Your task to perform on an android device: install app "Google Play Games" Image 0: 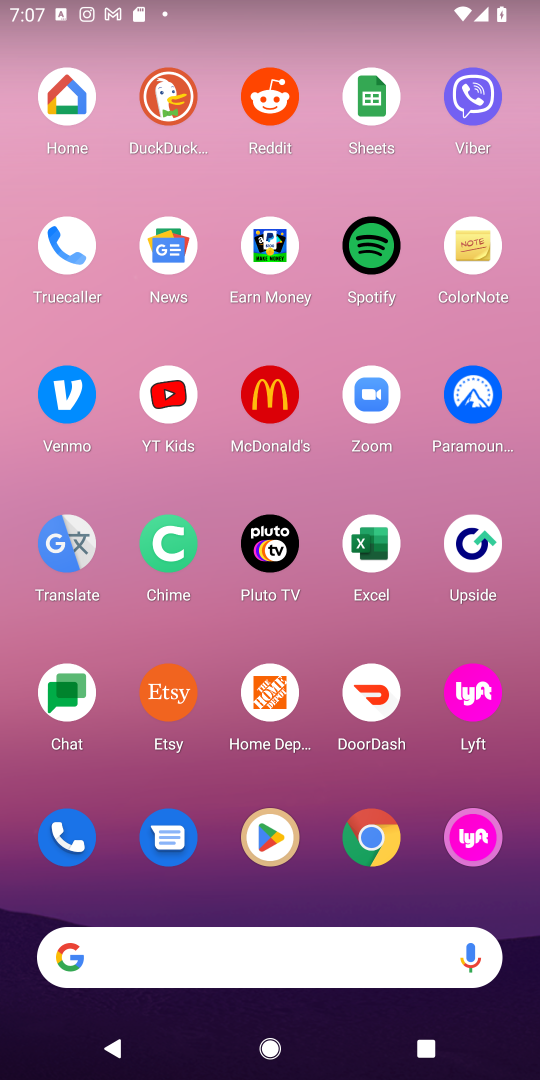
Step 0: press home button
Your task to perform on an android device: install app "Google Play Games" Image 1: 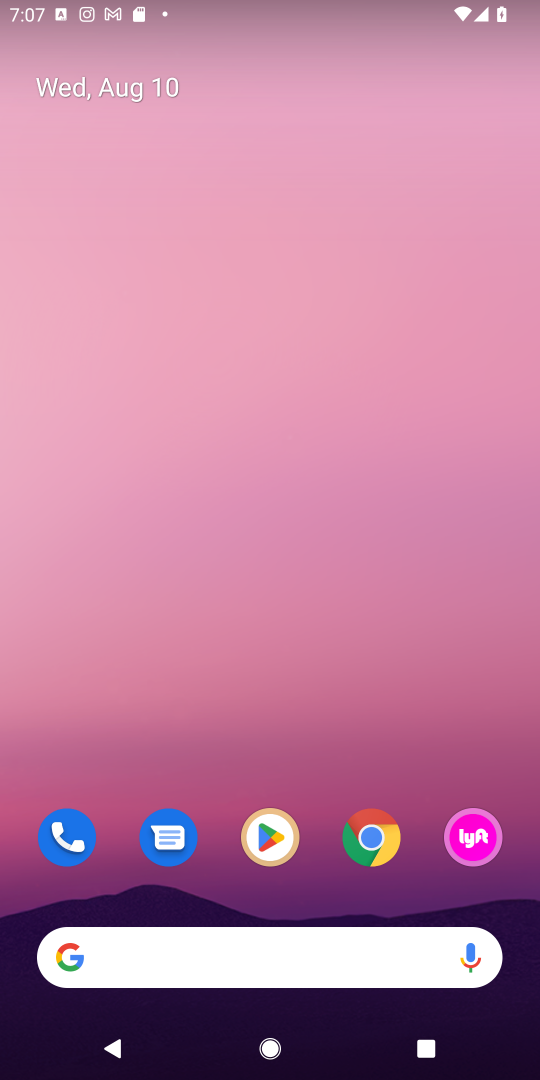
Step 1: click (274, 839)
Your task to perform on an android device: install app "Google Play Games" Image 2: 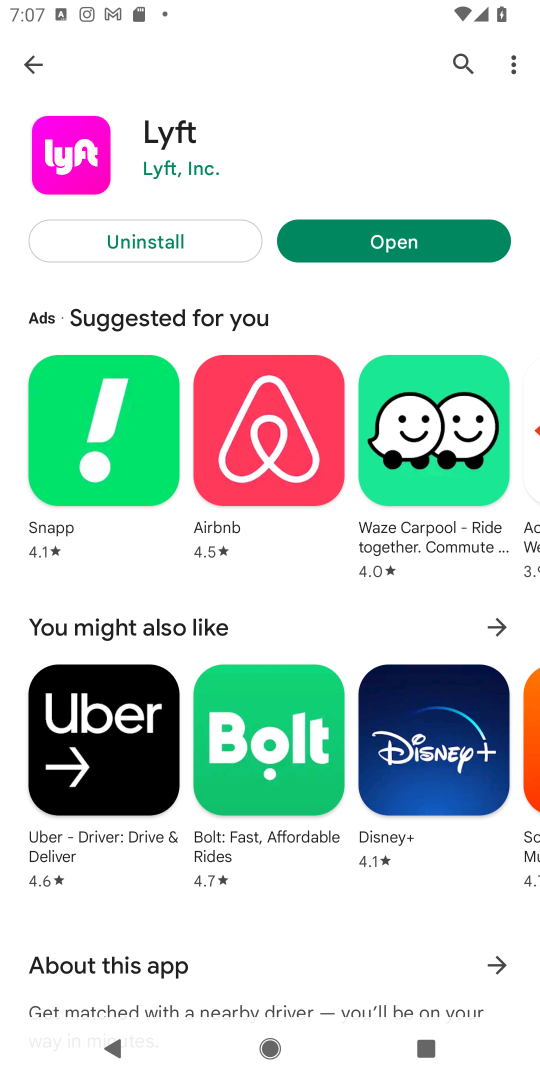
Step 2: click (457, 56)
Your task to perform on an android device: install app "Google Play Games" Image 3: 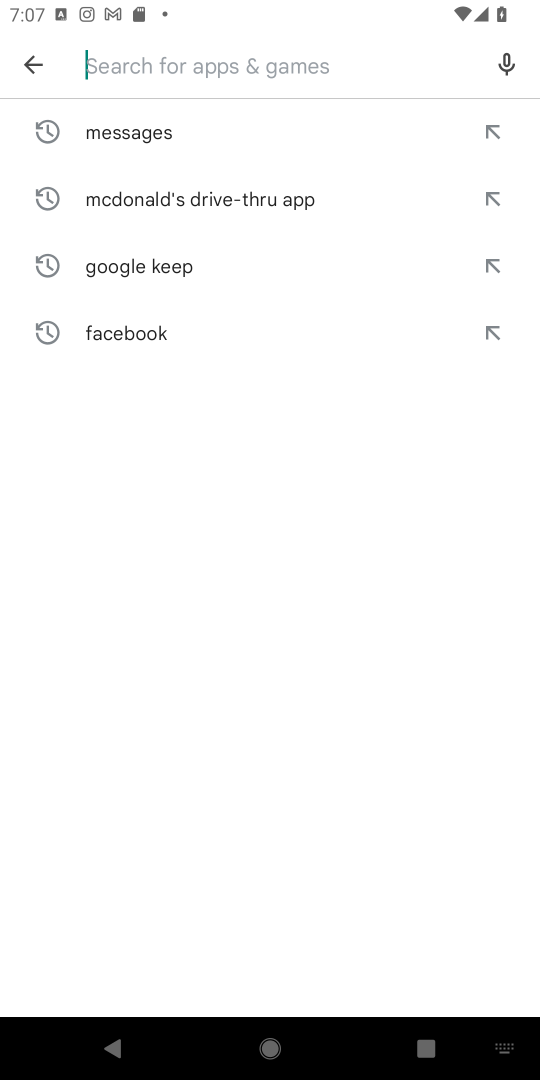
Step 3: type "Google Play Games"
Your task to perform on an android device: install app "Google Play Games" Image 4: 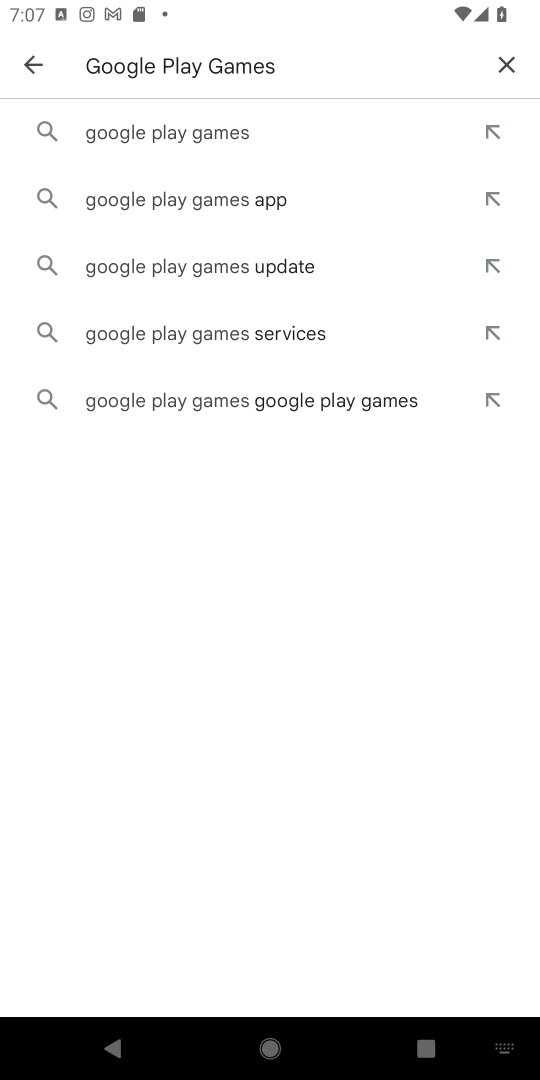
Step 4: click (229, 136)
Your task to perform on an android device: install app "Google Play Games" Image 5: 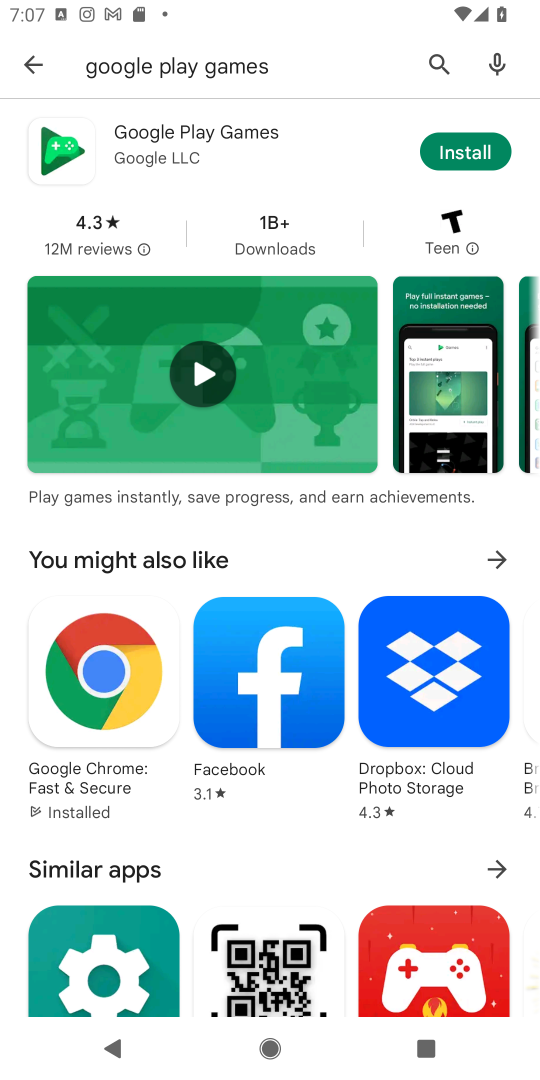
Step 5: click (451, 158)
Your task to perform on an android device: install app "Google Play Games" Image 6: 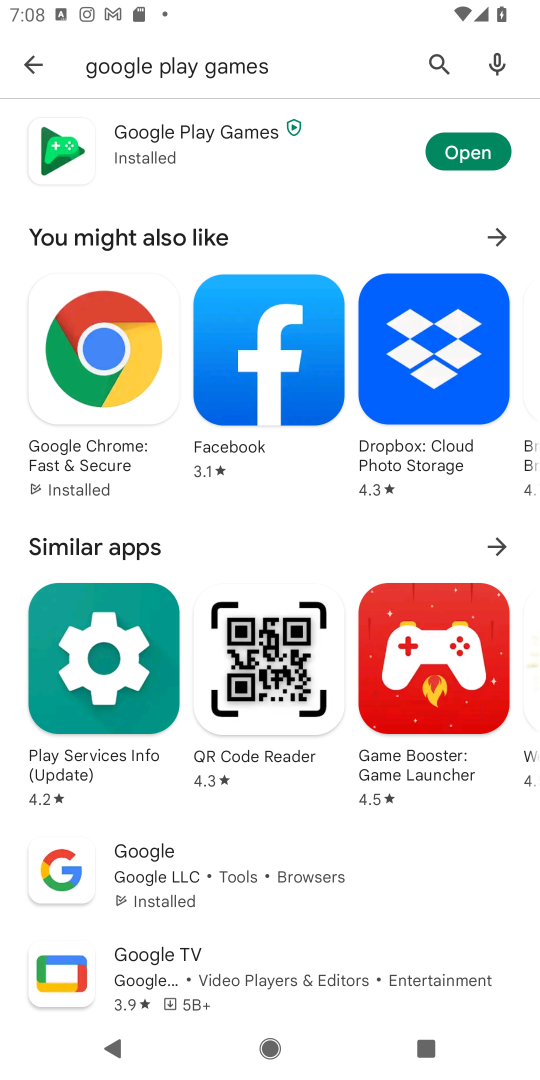
Step 6: task complete